Your task to perform on an android device: What's on my calendar today? Image 0: 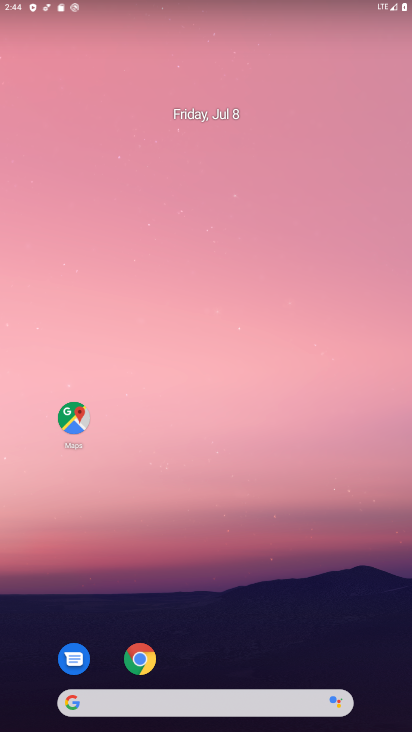
Step 0: press home button
Your task to perform on an android device: What's on my calendar today? Image 1: 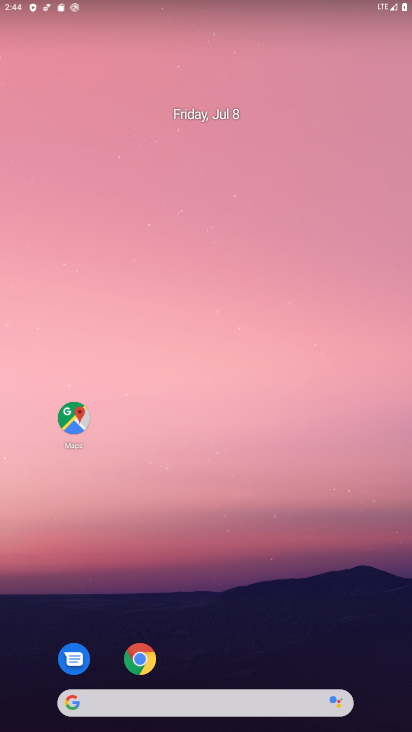
Step 1: drag from (213, 671) to (263, 43)
Your task to perform on an android device: What's on my calendar today? Image 2: 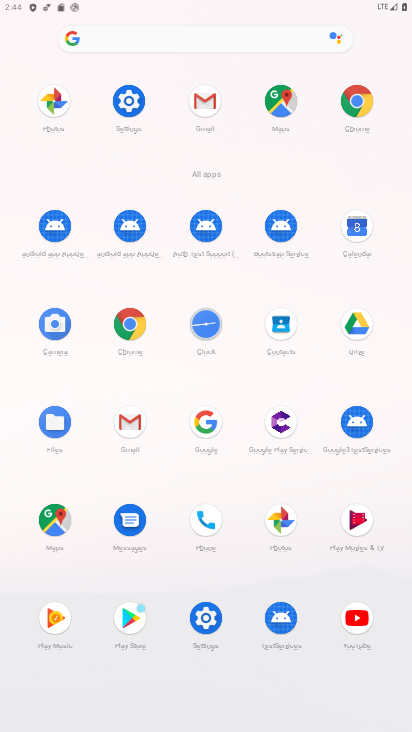
Step 2: click (350, 228)
Your task to perform on an android device: What's on my calendar today? Image 3: 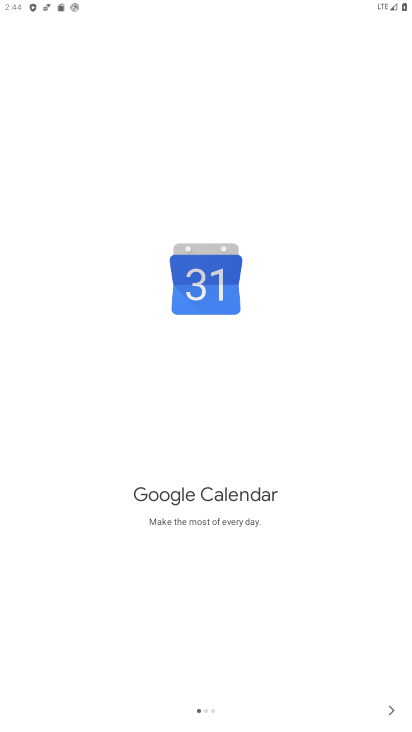
Step 3: click (386, 706)
Your task to perform on an android device: What's on my calendar today? Image 4: 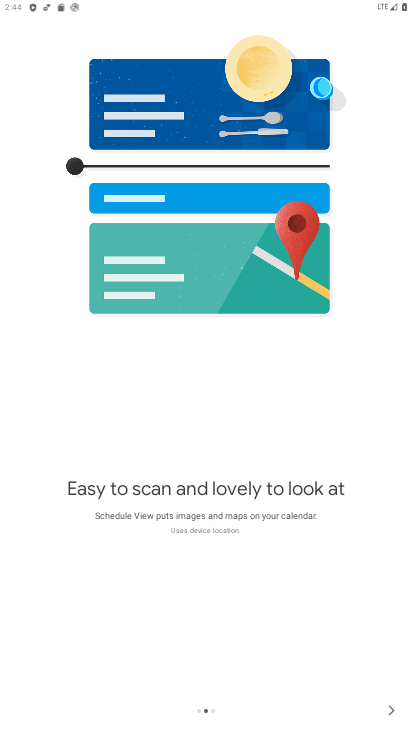
Step 4: click (394, 710)
Your task to perform on an android device: What's on my calendar today? Image 5: 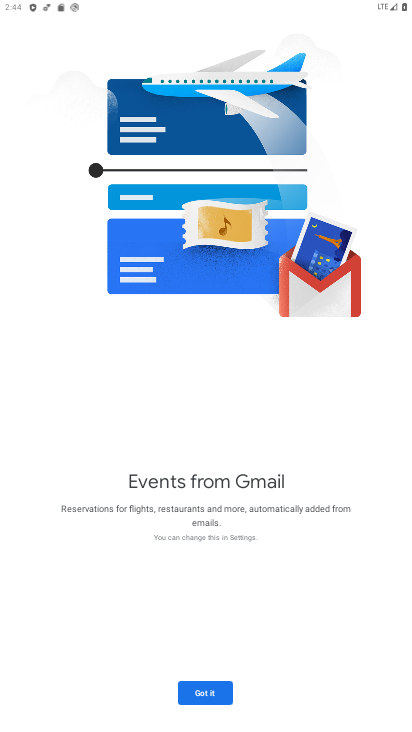
Step 5: click (206, 692)
Your task to perform on an android device: What's on my calendar today? Image 6: 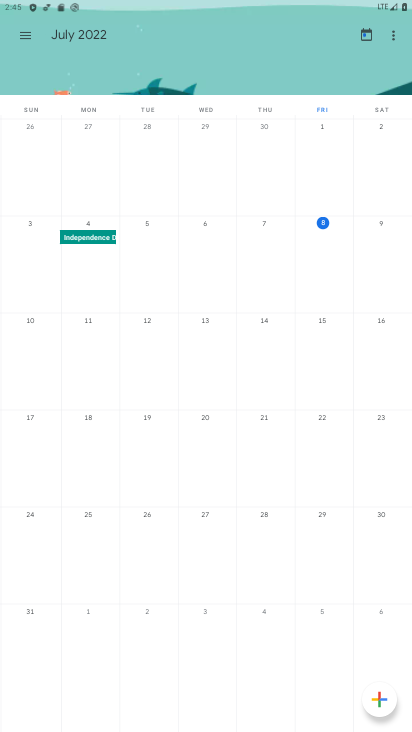
Step 6: click (318, 227)
Your task to perform on an android device: What's on my calendar today? Image 7: 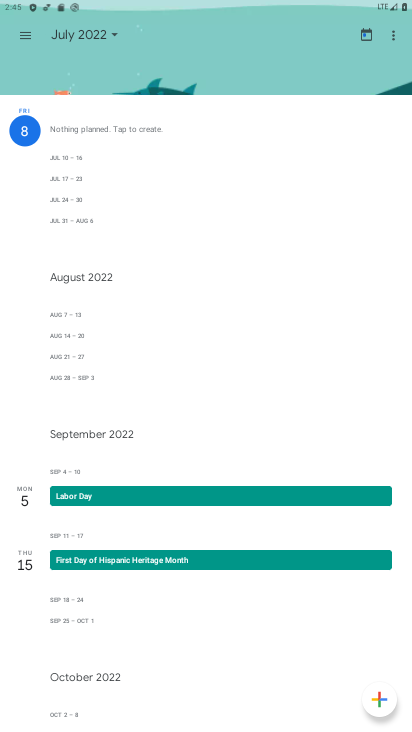
Step 7: click (28, 130)
Your task to perform on an android device: What's on my calendar today? Image 8: 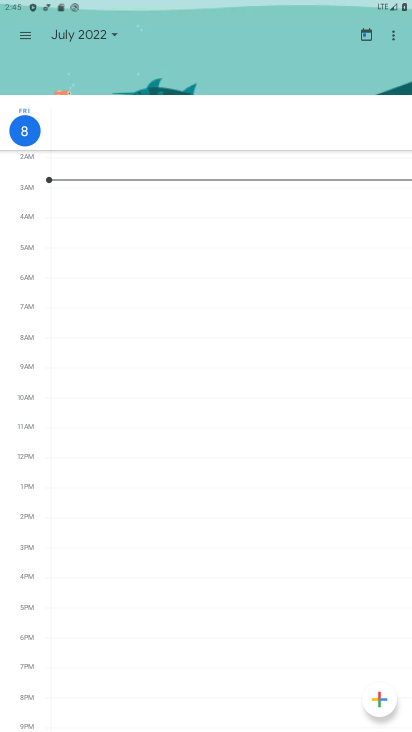
Step 8: task complete